Your task to perform on an android device: turn on showing notifications on the lock screen Image 0: 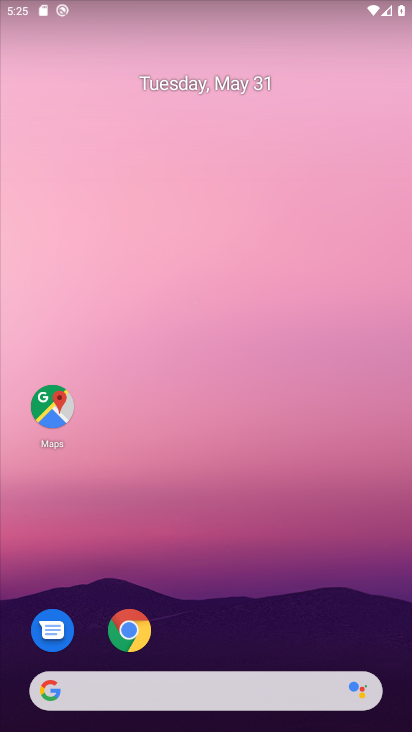
Step 0: drag from (207, 544) to (236, 125)
Your task to perform on an android device: turn on showing notifications on the lock screen Image 1: 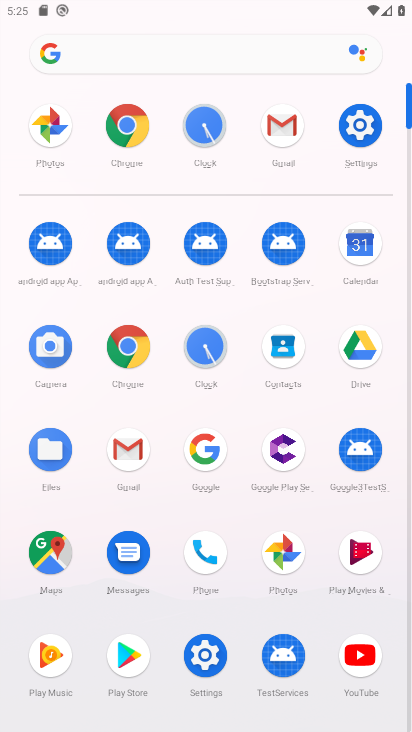
Step 1: click (367, 128)
Your task to perform on an android device: turn on showing notifications on the lock screen Image 2: 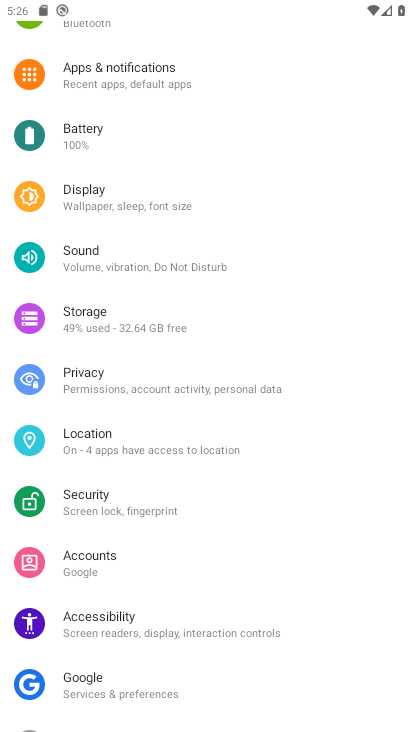
Step 2: click (152, 48)
Your task to perform on an android device: turn on showing notifications on the lock screen Image 3: 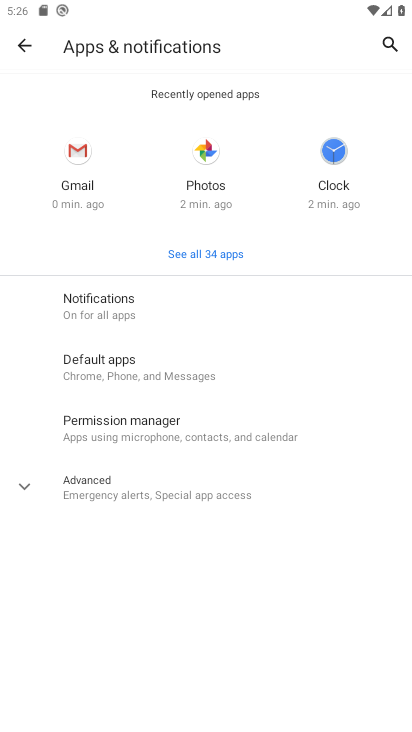
Step 3: click (173, 470)
Your task to perform on an android device: turn on showing notifications on the lock screen Image 4: 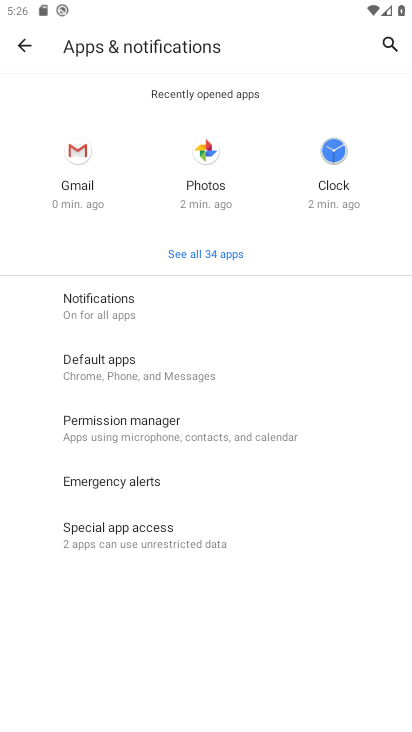
Step 4: press back button
Your task to perform on an android device: turn on showing notifications on the lock screen Image 5: 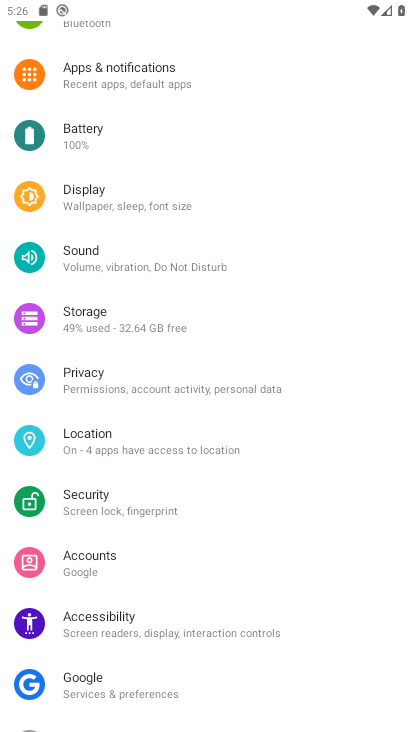
Step 5: click (131, 214)
Your task to perform on an android device: turn on showing notifications on the lock screen Image 6: 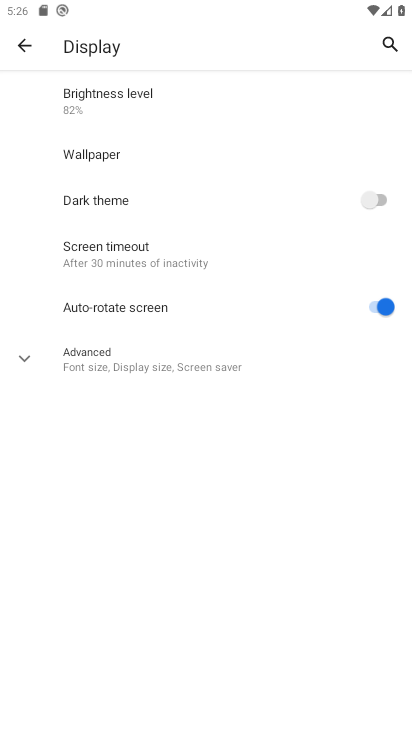
Step 6: press back button
Your task to perform on an android device: turn on showing notifications on the lock screen Image 7: 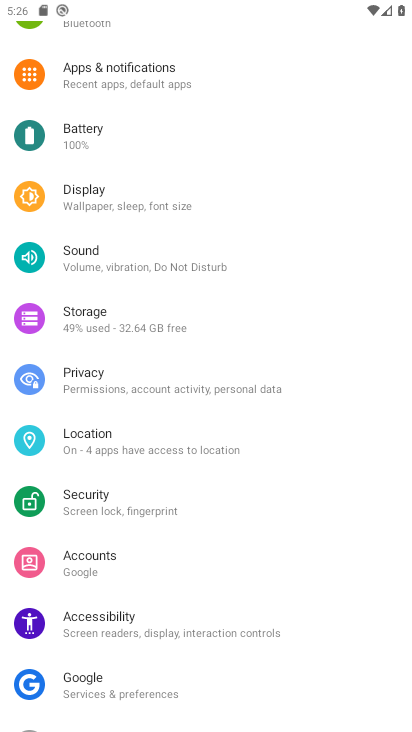
Step 7: drag from (174, 181) to (172, 608)
Your task to perform on an android device: turn on showing notifications on the lock screen Image 8: 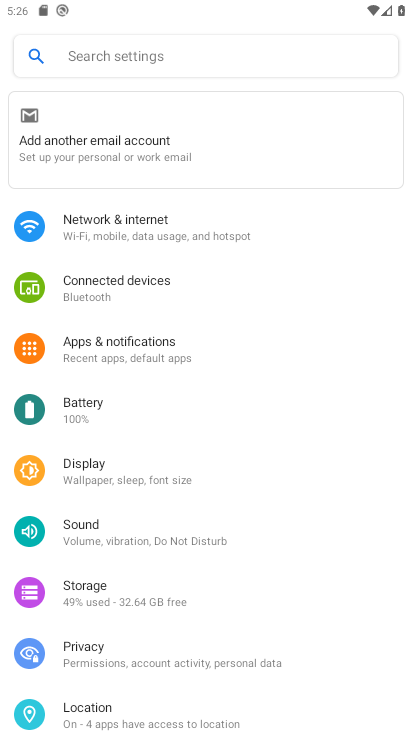
Step 8: drag from (141, 571) to (190, 223)
Your task to perform on an android device: turn on showing notifications on the lock screen Image 9: 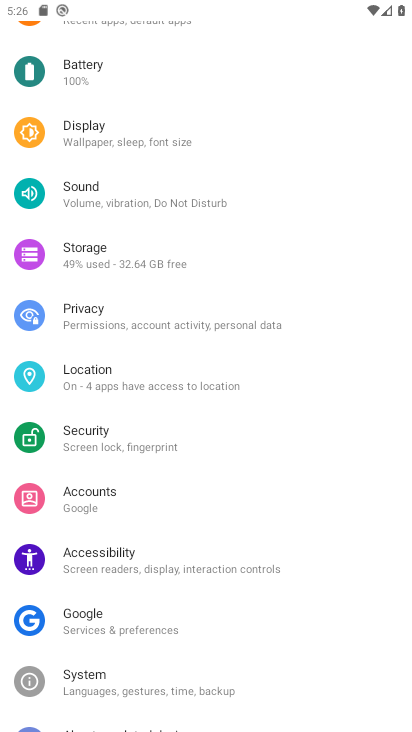
Step 9: drag from (118, 600) to (136, 298)
Your task to perform on an android device: turn on showing notifications on the lock screen Image 10: 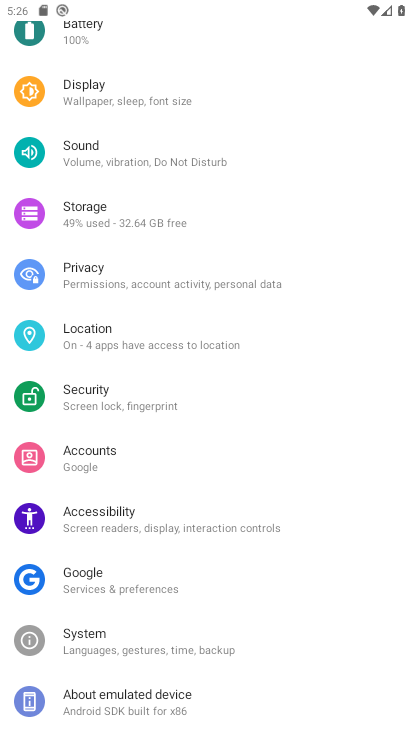
Step 10: click (70, 702)
Your task to perform on an android device: turn on showing notifications on the lock screen Image 11: 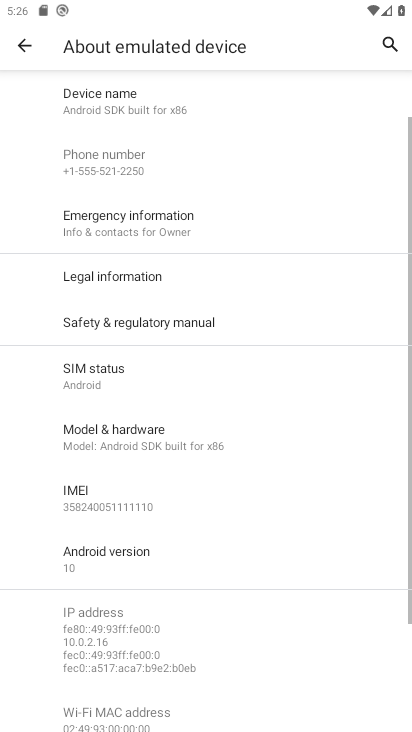
Step 11: drag from (179, 562) to (188, 213)
Your task to perform on an android device: turn on showing notifications on the lock screen Image 12: 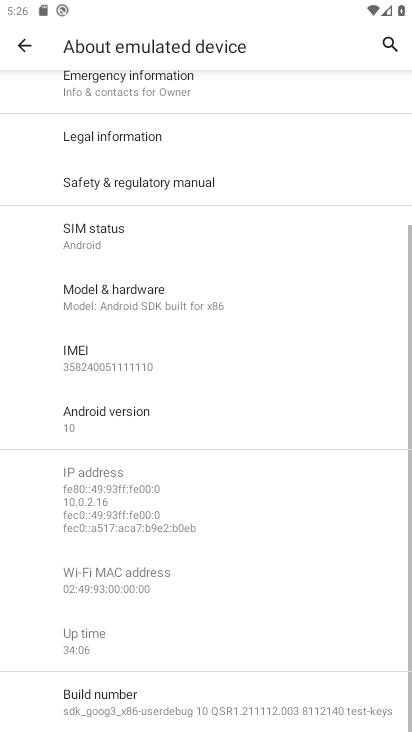
Step 12: press back button
Your task to perform on an android device: turn on showing notifications on the lock screen Image 13: 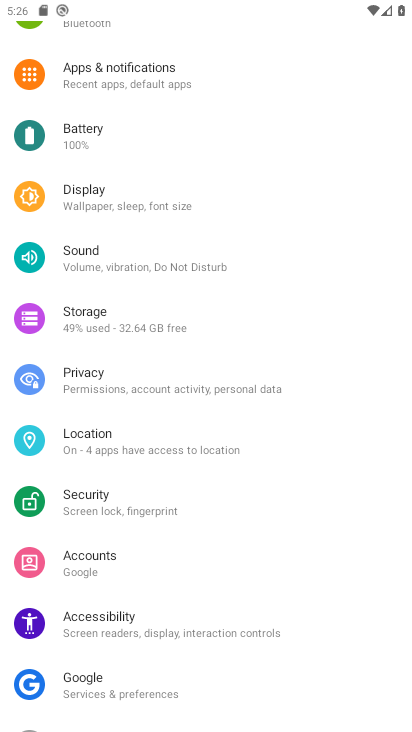
Step 13: click (173, 76)
Your task to perform on an android device: turn on showing notifications on the lock screen Image 14: 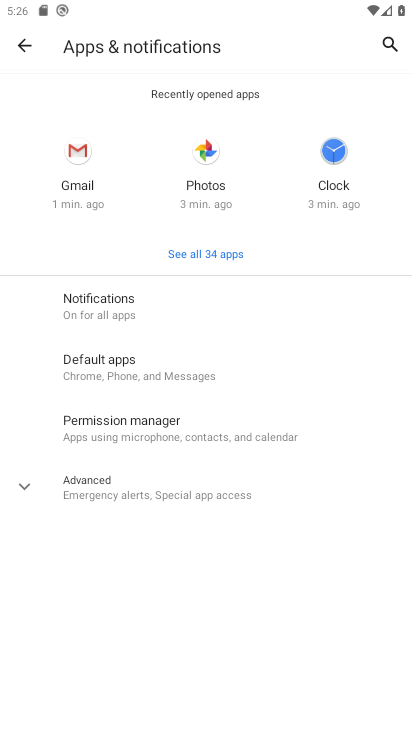
Step 14: click (108, 310)
Your task to perform on an android device: turn on showing notifications on the lock screen Image 15: 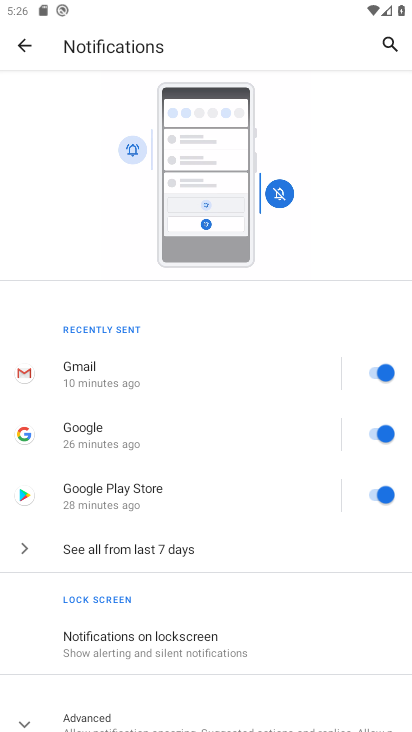
Step 15: click (176, 630)
Your task to perform on an android device: turn on showing notifications on the lock screen Image 16: 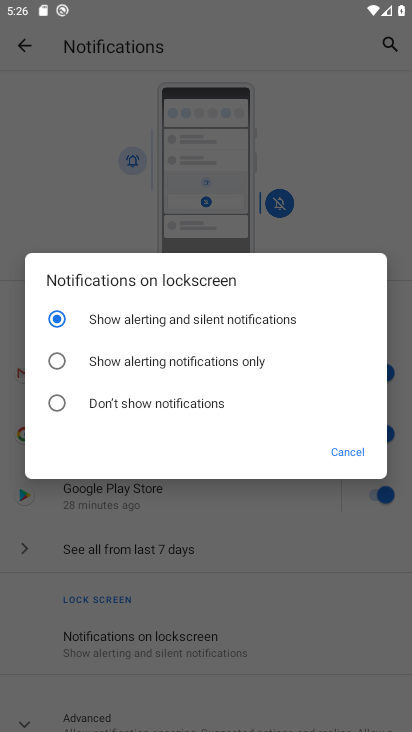
Step 16: click (62, 359)
Your task to perform on an android device: turn on showing notifications on the lock screen Image 17: 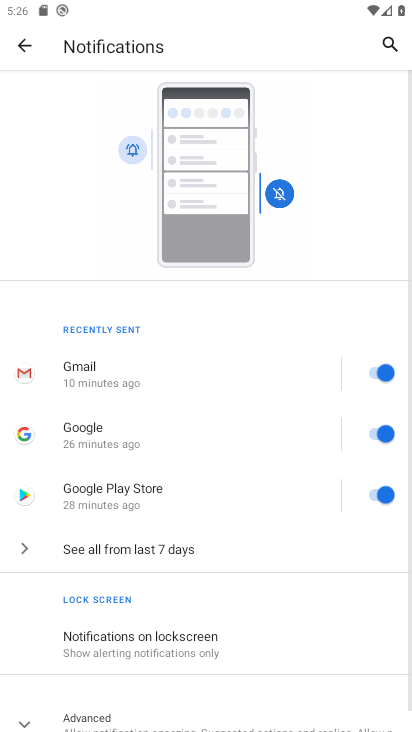
Step 17: task complete